Your task to perform on an android device: open a new tab in the chrome app Image 0: 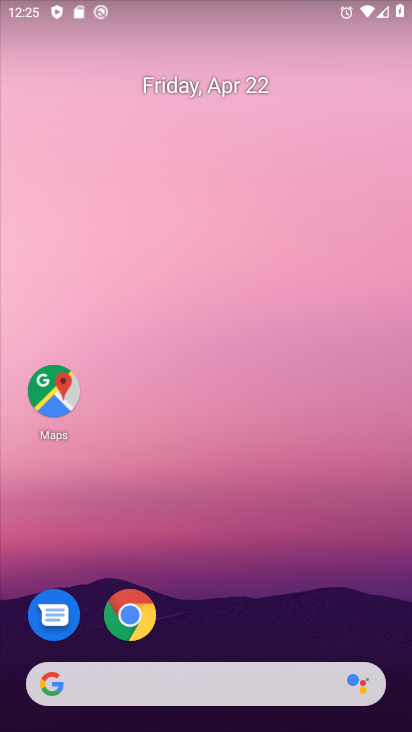
Step 0: click (138, 624)
Your task to perform on an android device: open a new tab in the chrome app Image 1: 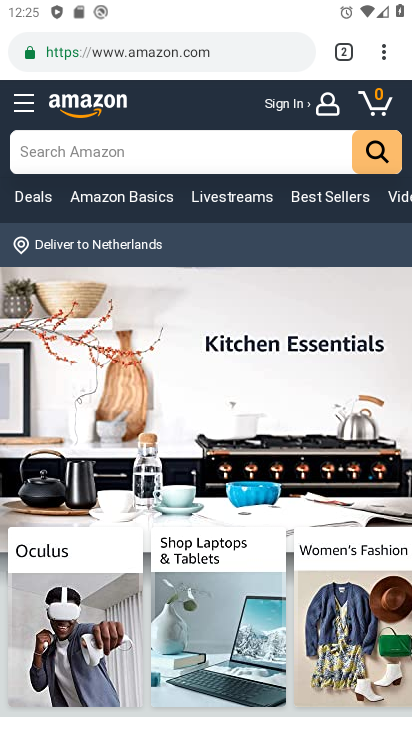
Step 1: click (344, 48)
Your task to perform on an android device: open a new tab in the chrome app Image 2: 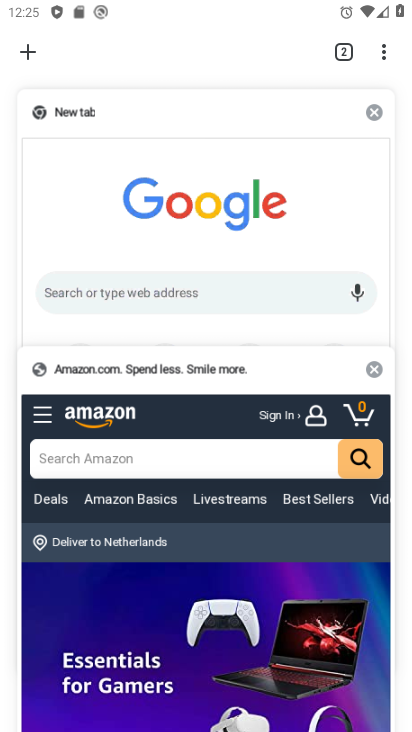
Step 2: click (32, 58)
Your task to perform on an android device: open a new tab in the chrome app Image 3: 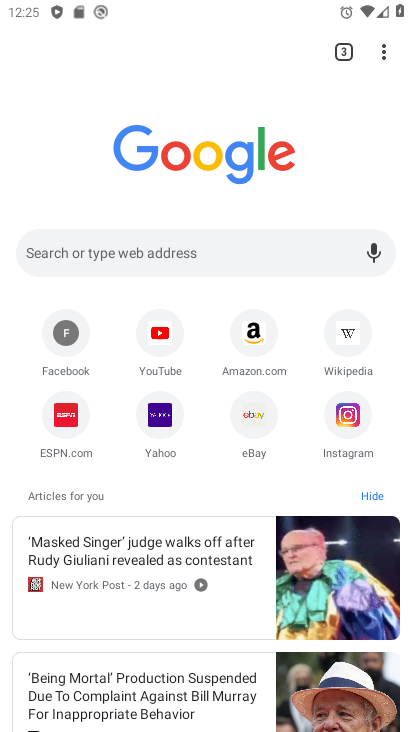
Step 3: task complete